Your task to perform on an android device: turn off priority inbox in the gmail app Image 0: 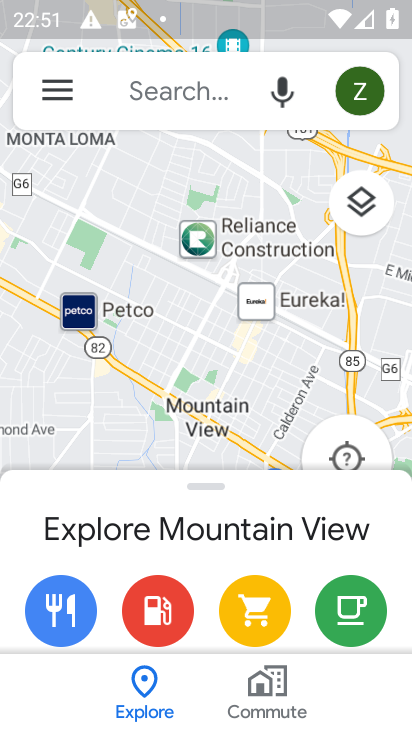
Step 0: press home button
Your task to perform on an android device: turn off priority inbox in the gmail app Image 1: 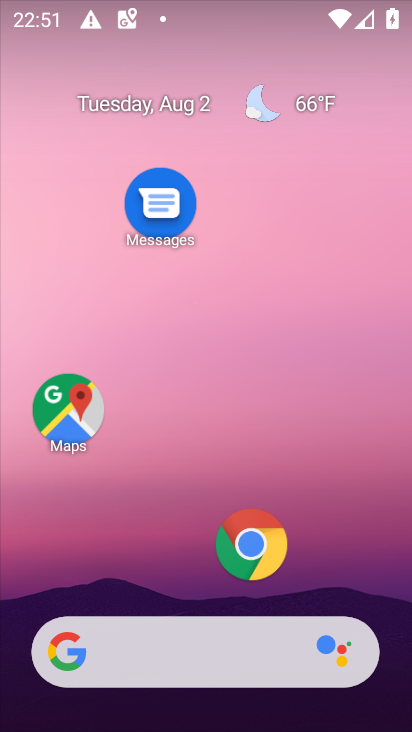
Step 1: drag from (183, 569) to (197, 190)
Your task to perform on an android device: turn off priority inbox in the gmail app Image 2: 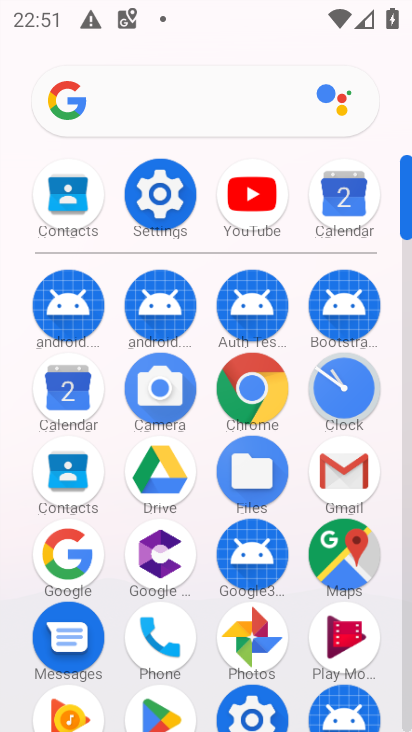
Step 2: click (334, 480)
Your task to perform on an android device: turn off priority inbox in the gmail app Image 3: 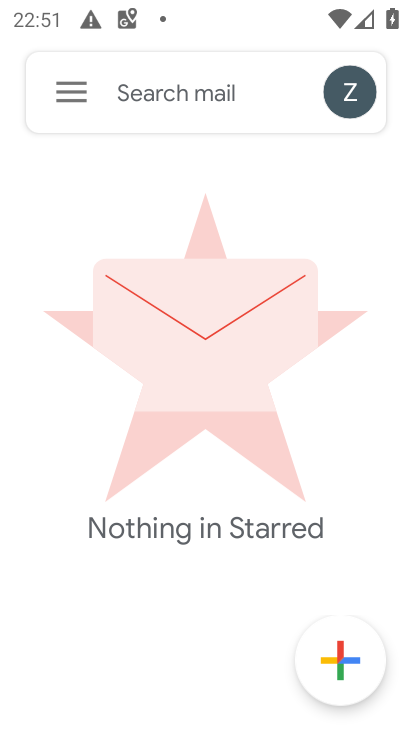
Step 3: click (66, 106)
Your task to perform on an android device: turn off priority inbox in the gmail app Image 4: 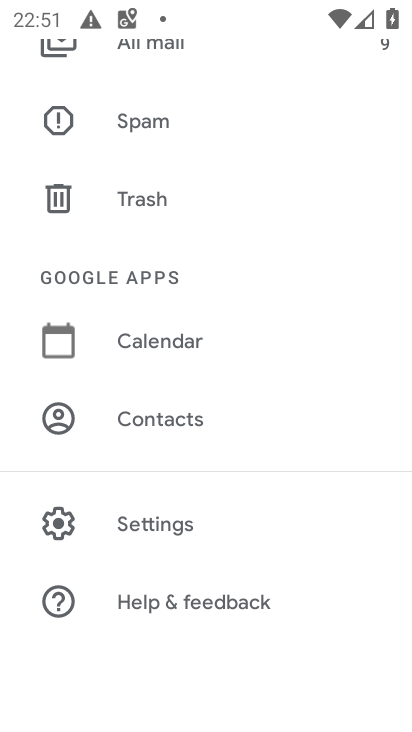
Step 4: click (176, 517)
Your task to perform on an android device: turn off priority inbox in the gmail app Image 5: 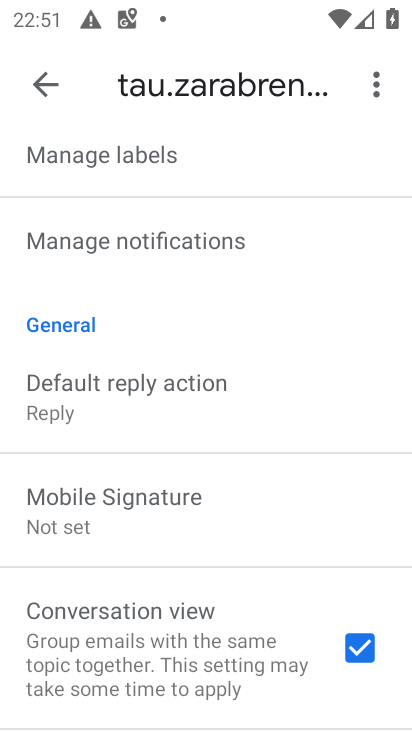
Step 5: drag from (189, 197) to (229, 519)
Your task to perform on an android device: turn off priority inbox in the gmail app Image 6: 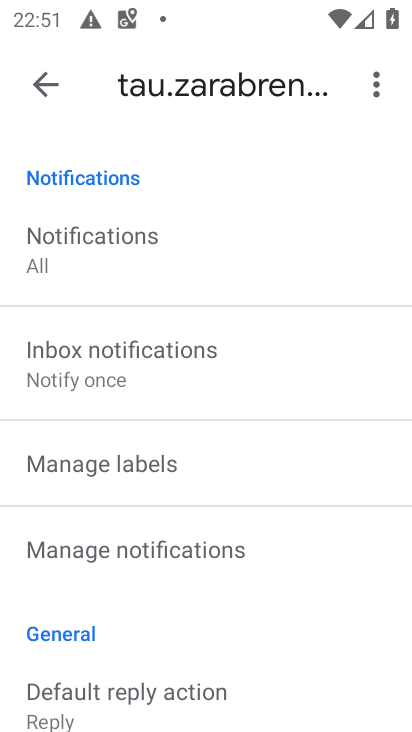
Step 6: drag from (153, 233) to (153, 546)
Your task to perform on an android device: turn off priority inbox in the gmail app Image 7: 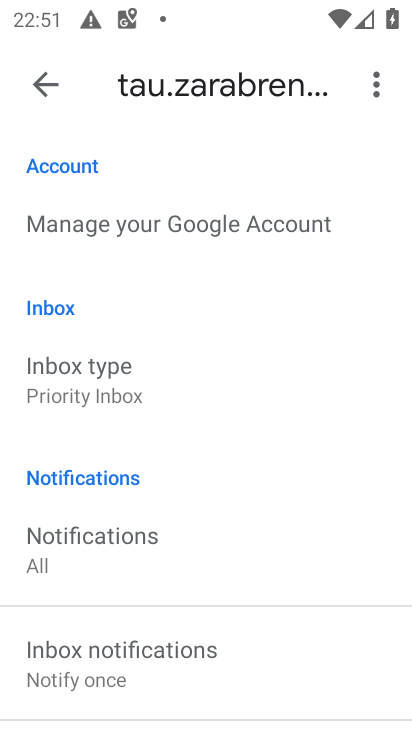
Step 7: click (119, 376)
Your task to perform on an android device: turn off priority inbox in the gmail app Image 8: 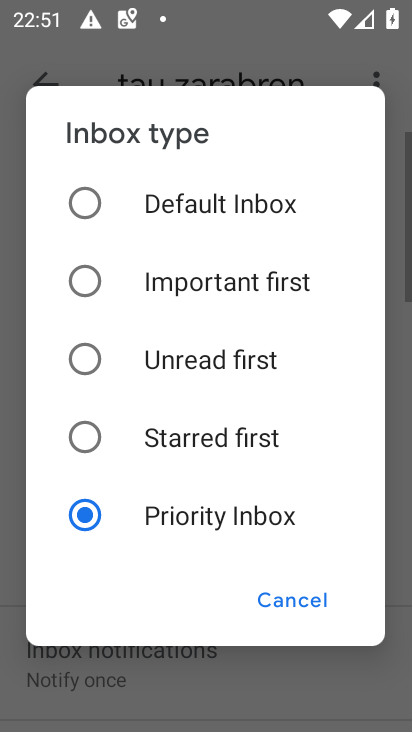
Step 8: click (147, 202)
Your task to perform on an android device: turn off priority inbox in the gmail app Image 9: 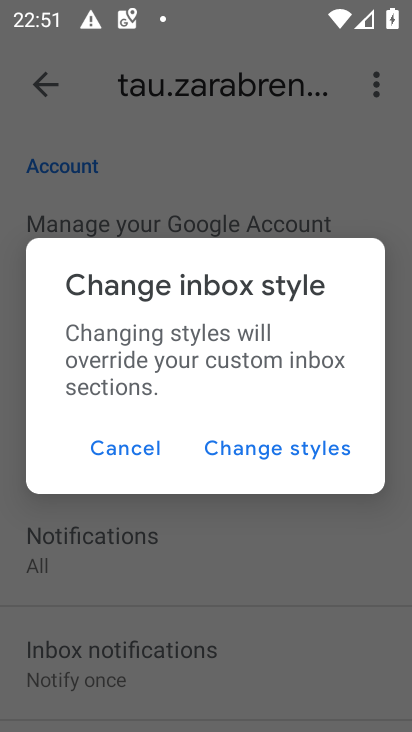
Step 9: task complete